Your task to perform on an android device: Open Google Chrome Image 0: 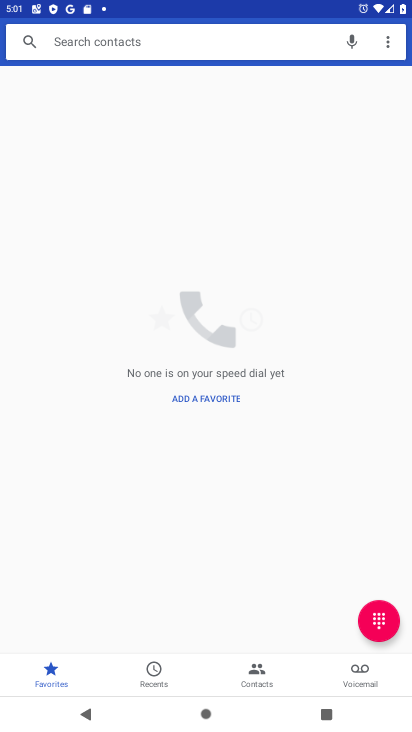
Step 0: press home button
Your task to perform on an android device: Open Google Chrome Image 1: 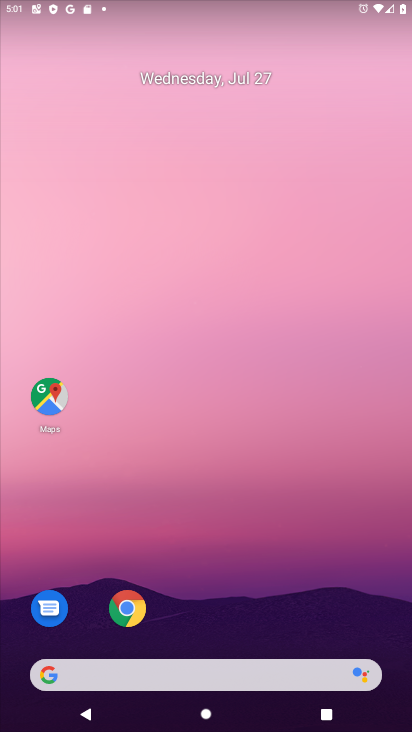
Step 1: click (125, 610)
Your task to perform on an android device: Open Google Chrome Image 2: 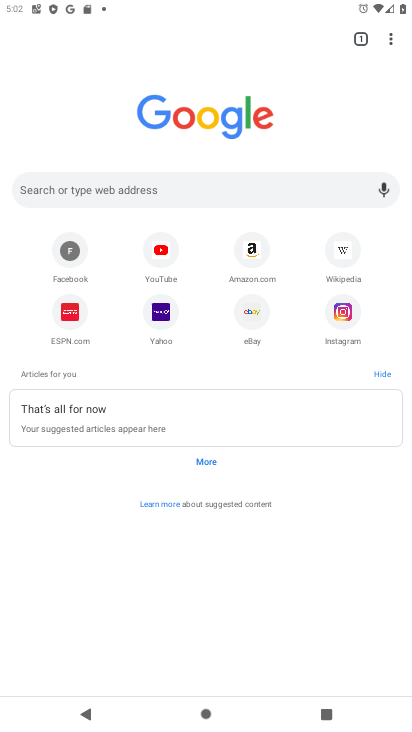
Step 2: task complete